Your task to perform on an android device: Open Amazon Image 0: 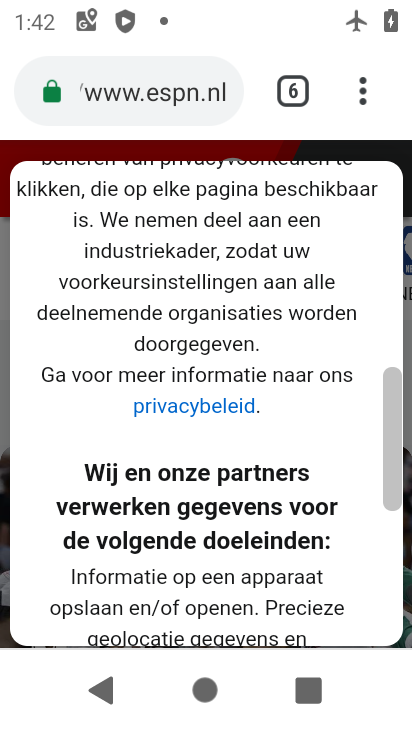
Step 0: click (266, 87)
Your task to perform on an android device: Open Amazon Image 1: 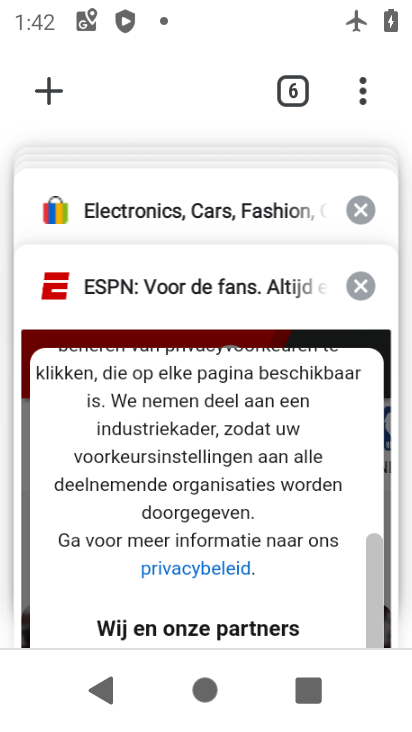
Step 1: click (27, 76)
Your task to perform on an android device: Open Amazon Image 2: 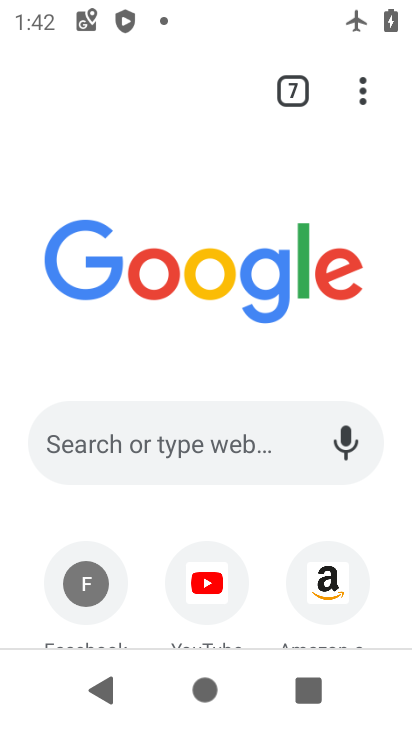
Step 2: click (356, 587)
Your task to perform on an android device: Open Amazon Image 3: 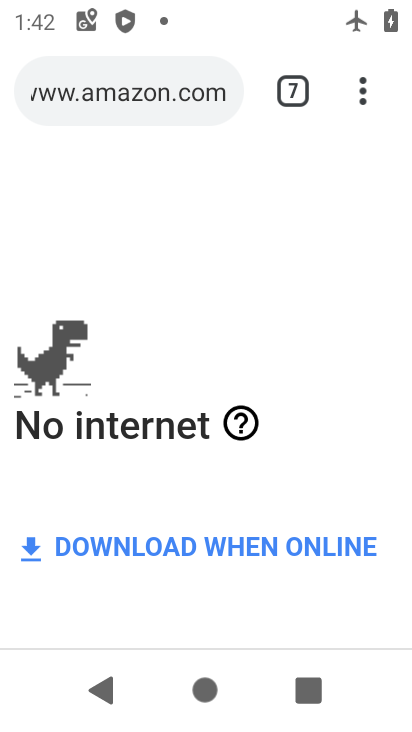
Step 3: task complete